Your task to perform on an android device: Look up the best rated bike seats on Target Image 0: 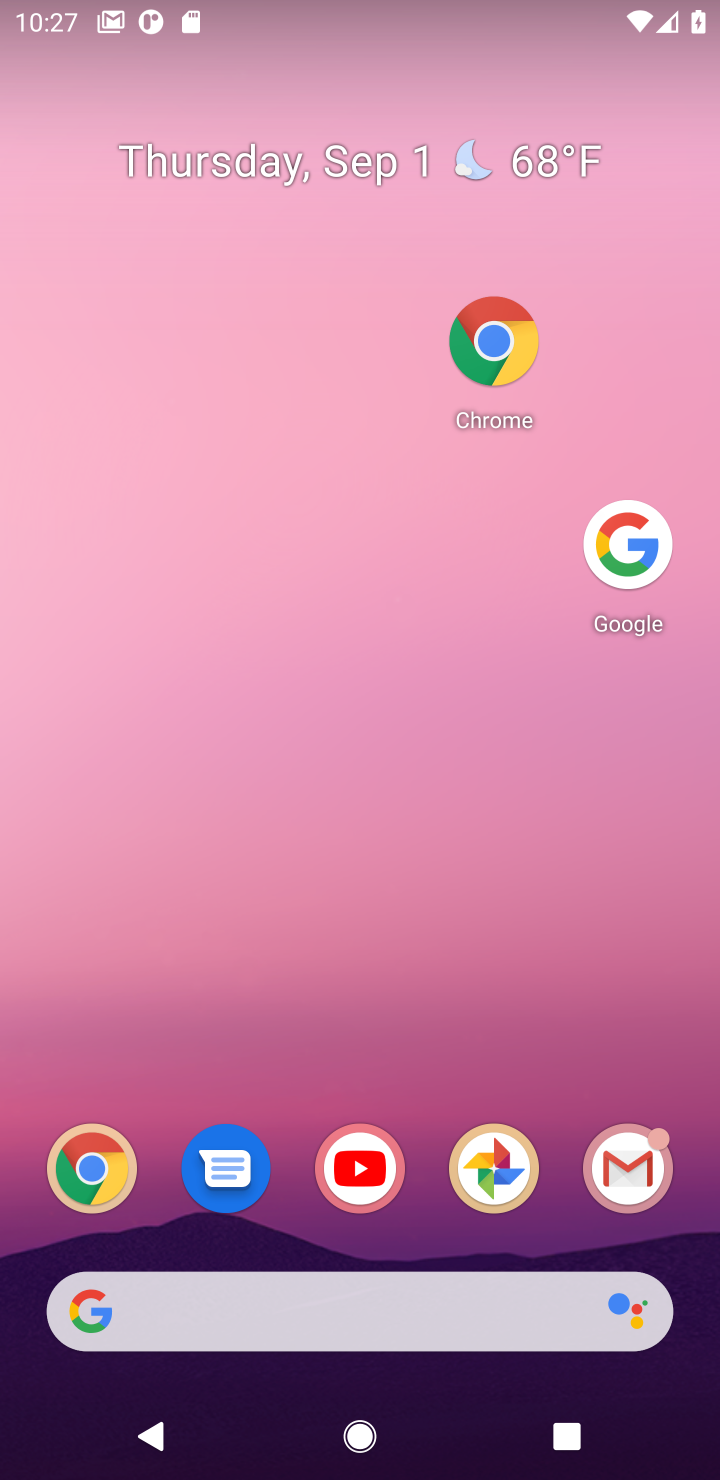
Step 0: drag from (195, 1198) to (207, 283)
Your task to perform on an android device: Look up the best rated bike seats on Target Image 1: 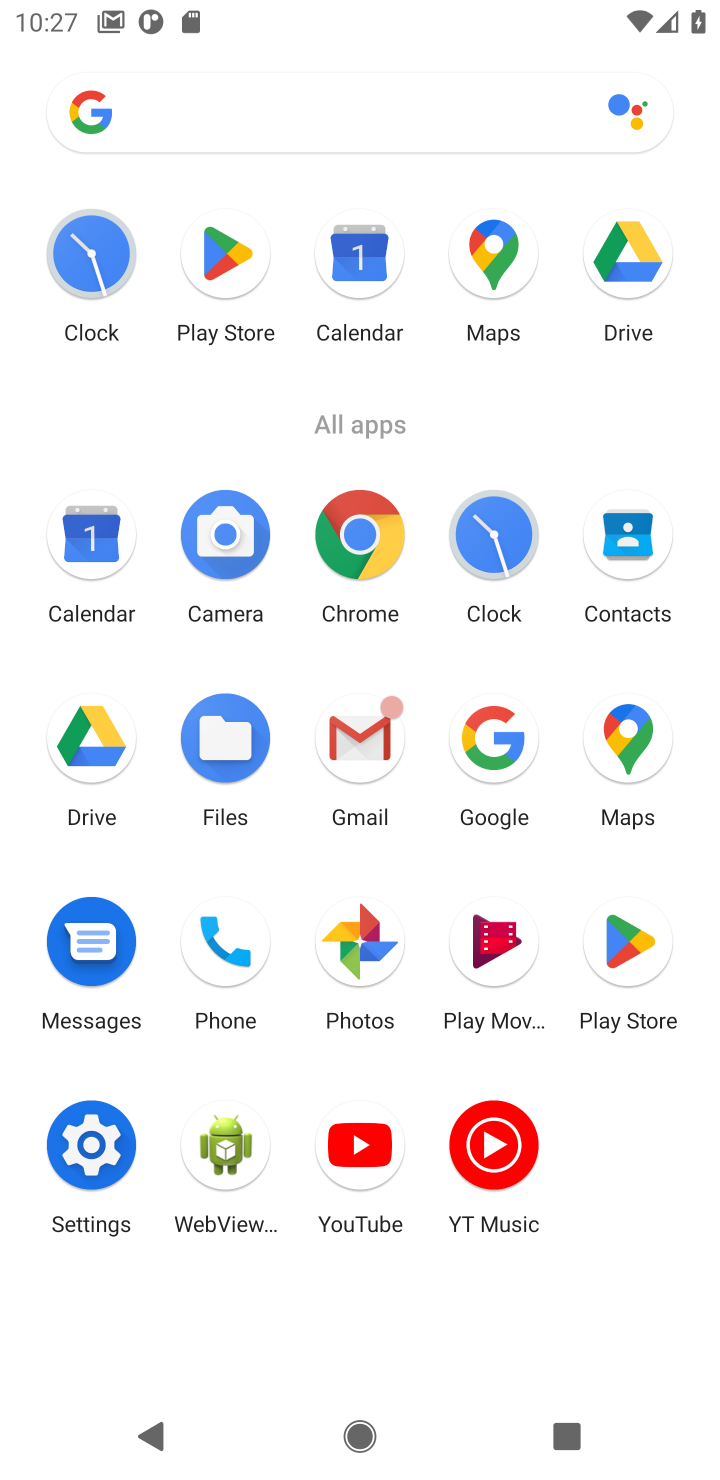
Step 1: click (506, 748)
Your task to perform on an android device: Look up the best rated bike seats on Target Image 2: 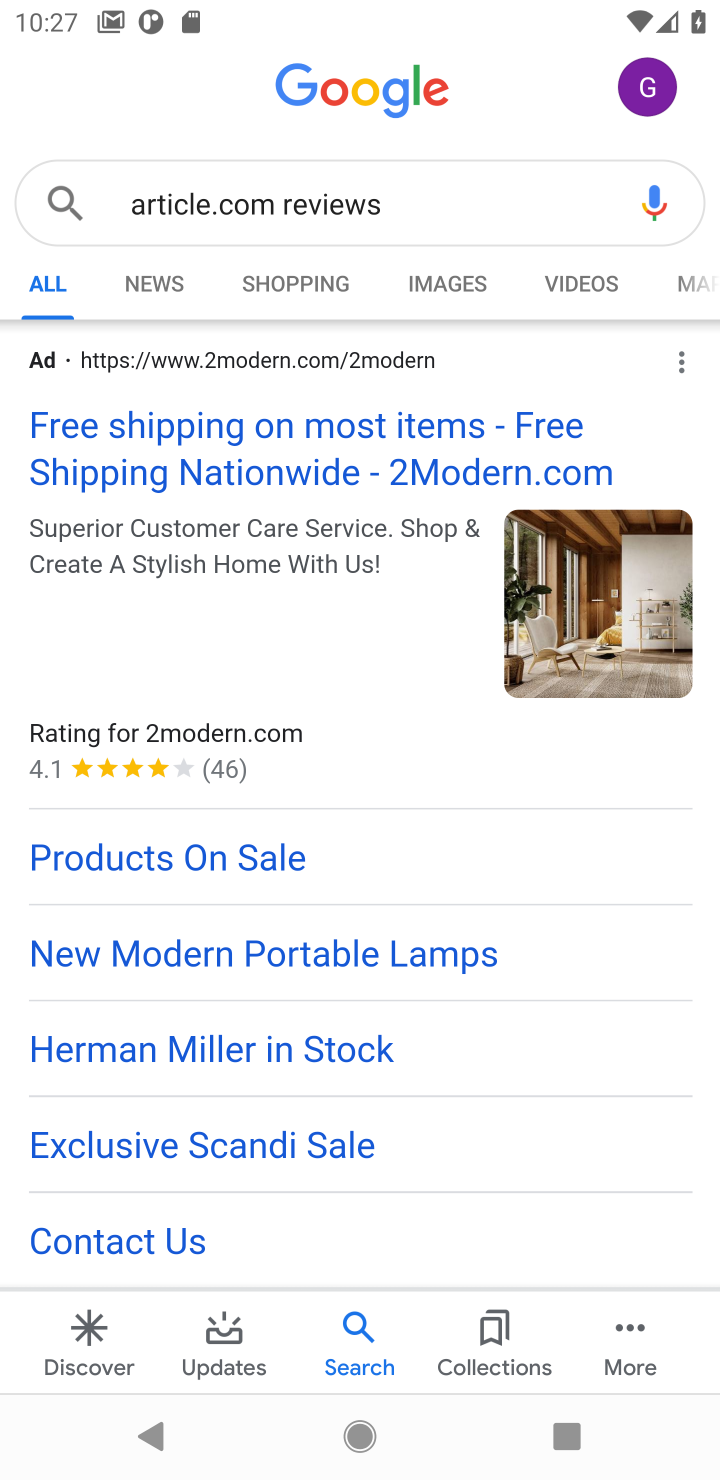
Step 2: click (417, 202)
Your task to perform on an android device: Look up the best rated bike seats on Target Image 3: 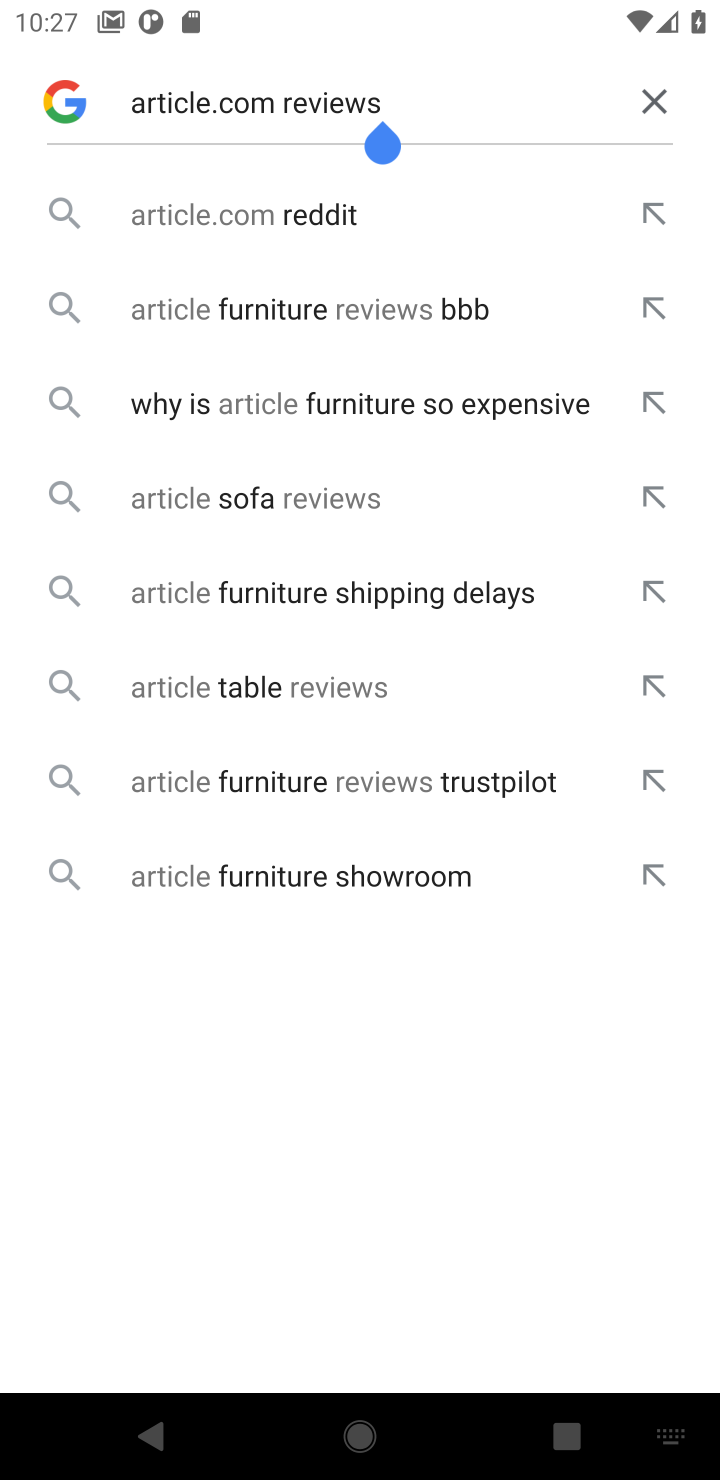
Step 3: click (665, 107)
Your task to perform on an android device: Look up the best rated bike seats on Target Image 4: 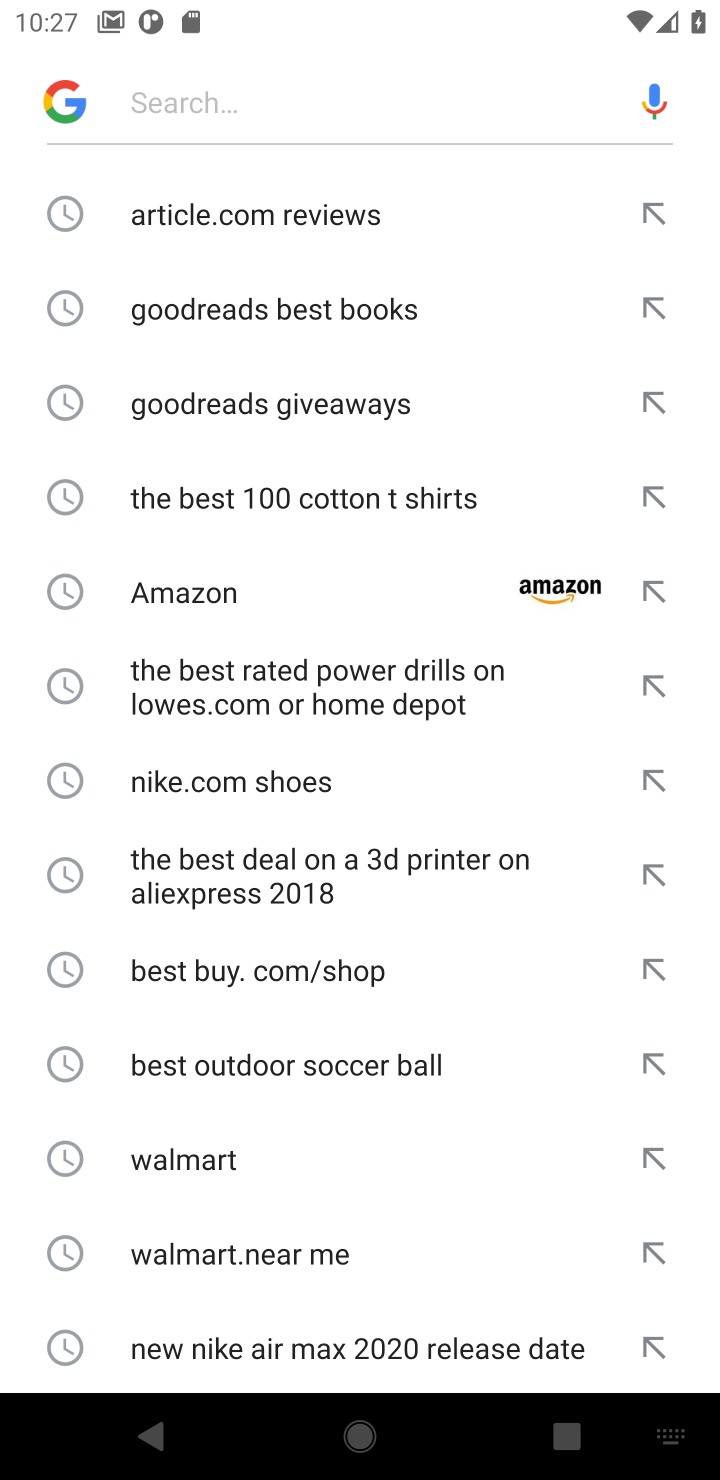
Step 4: click (285, 105)
Your task to perform on an android device: Look up the best rated bike seats on Target Image 5: 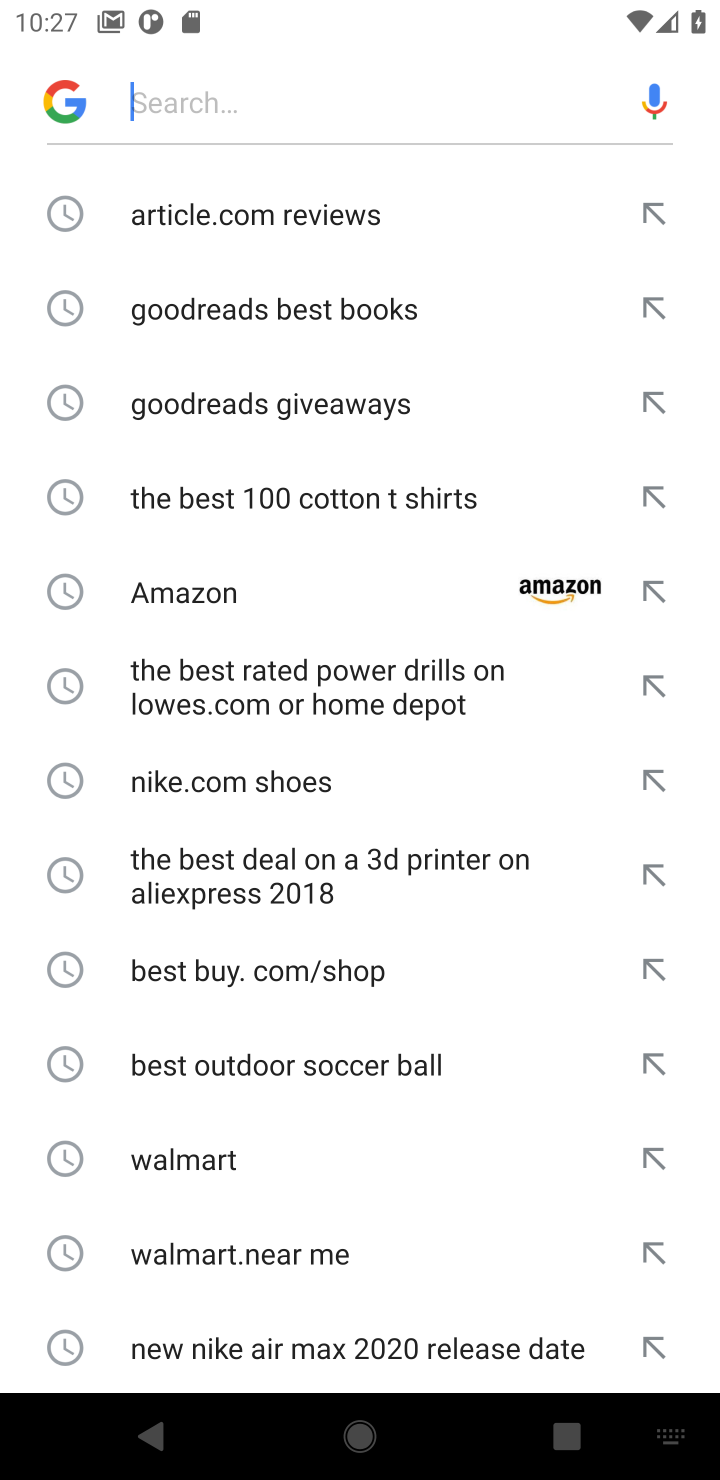
Step 5: type "Target "
Your task to perform on an android device: Look up the best rated bike seats on Target Image 6: 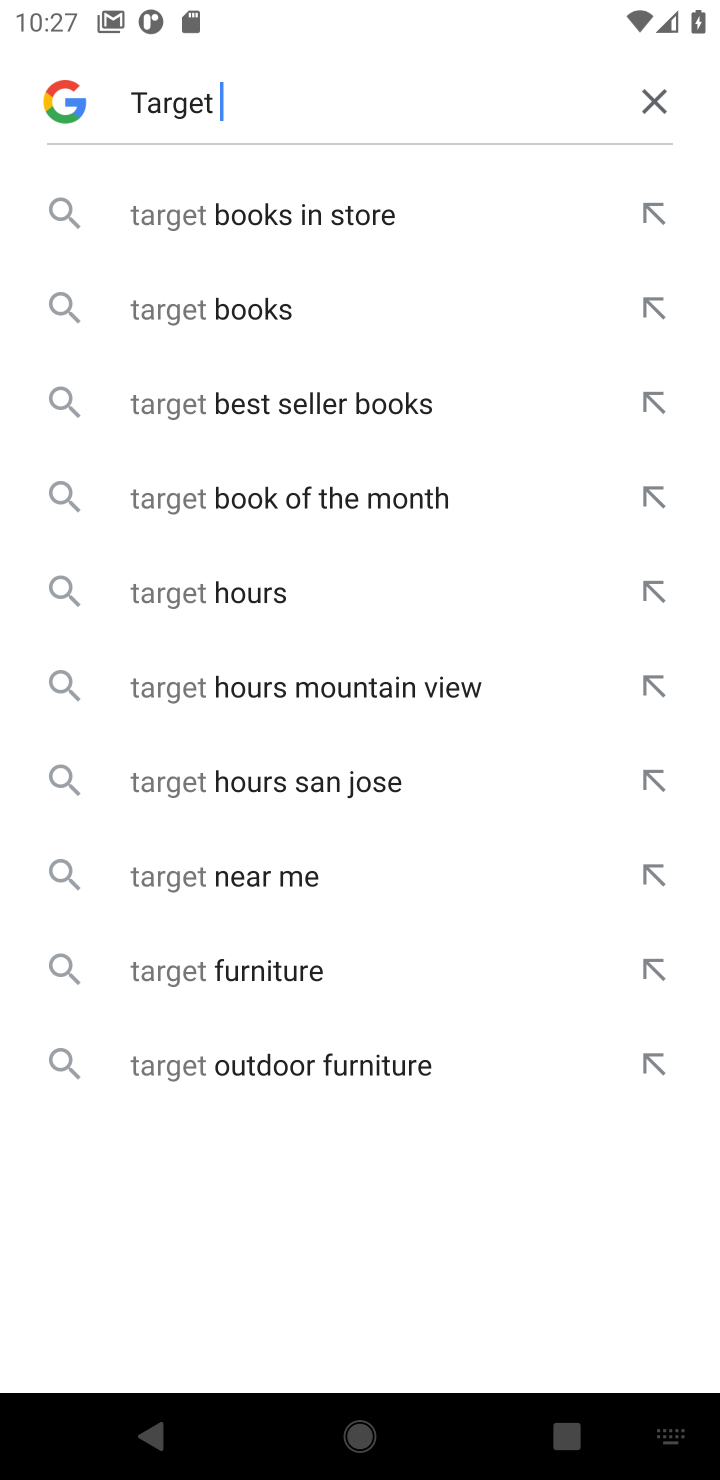
Step 6: click (189, 1044)
Your task to perform on an android device: Look up the best rated bike seats on Target Image 7: 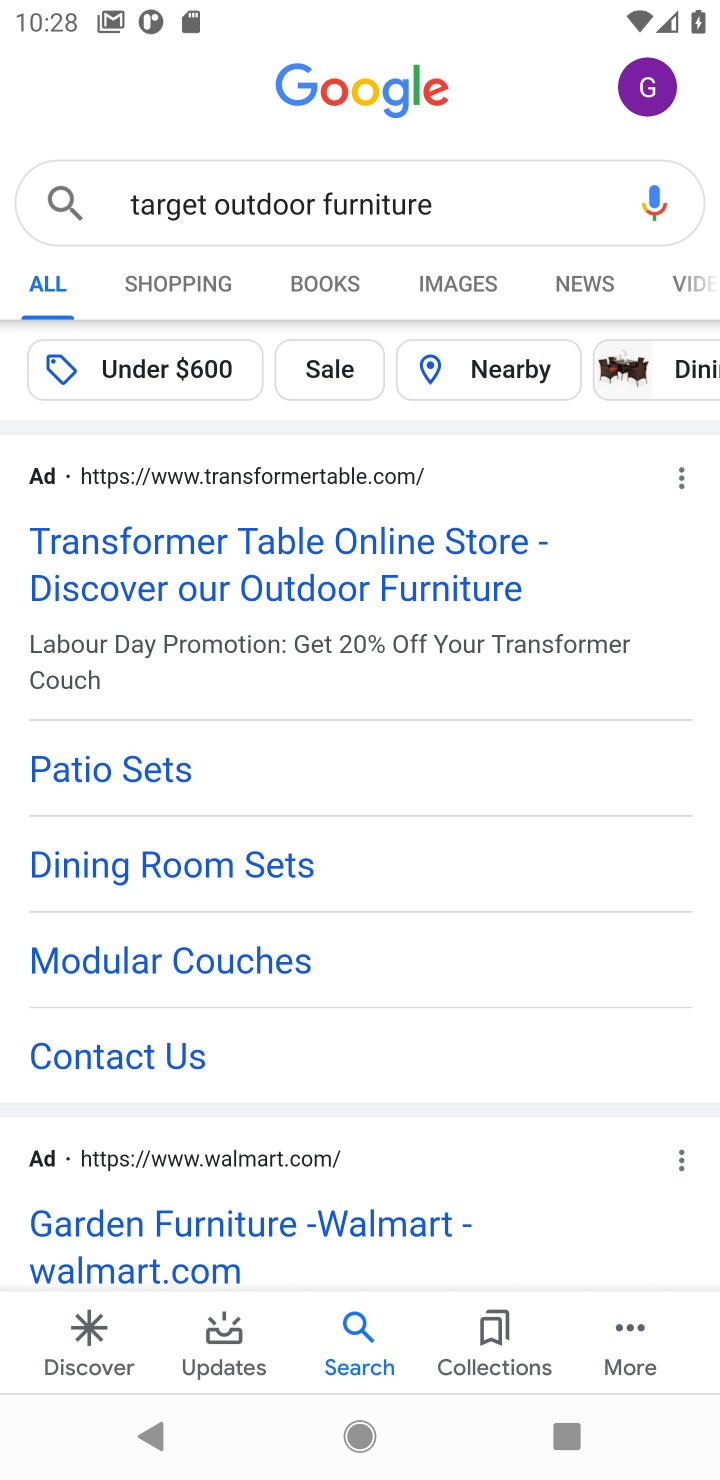
Step 7: click (319, 580)
Your task to perform on an android device: Look up the best rated bike seats on Target Image 8: 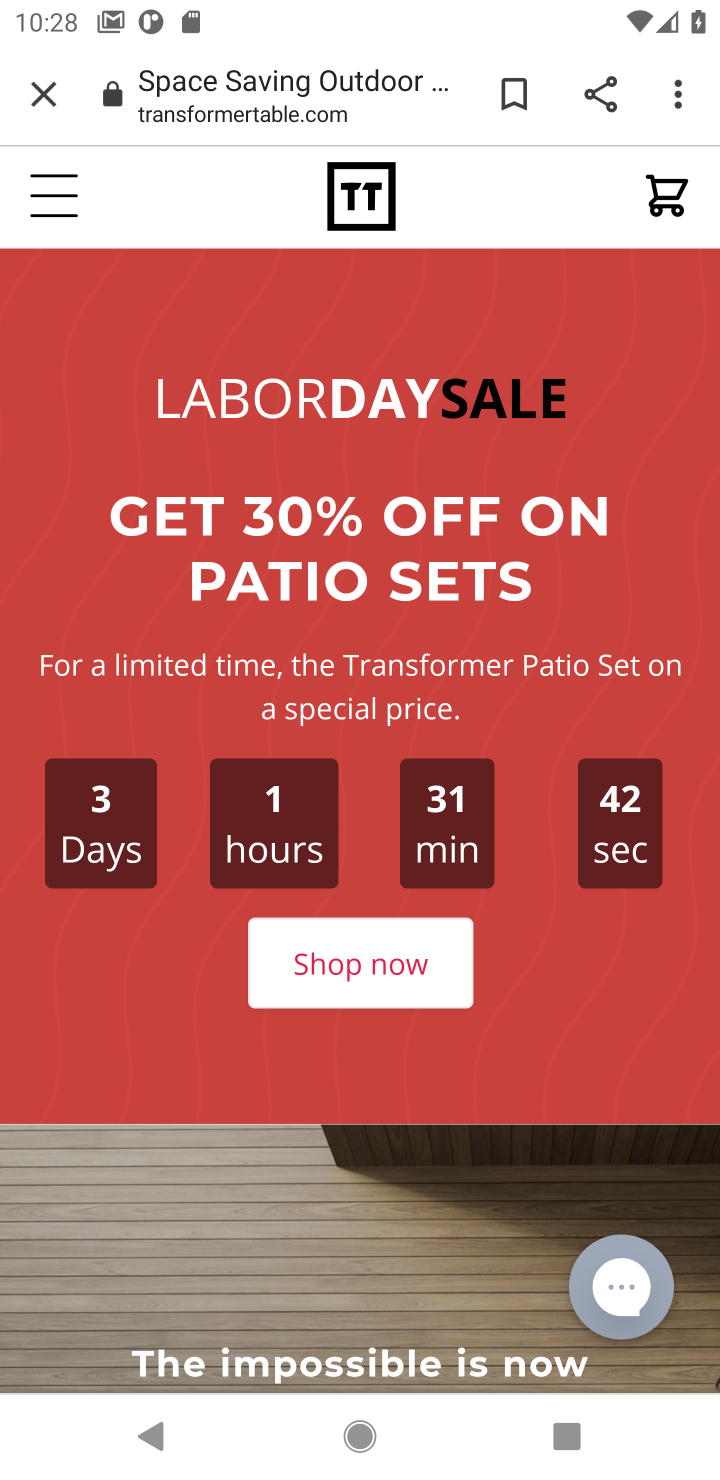
Step 8: click (73, 182)
Your task to perform on an android device: Look up the best rated bike seats on Target Image 9: 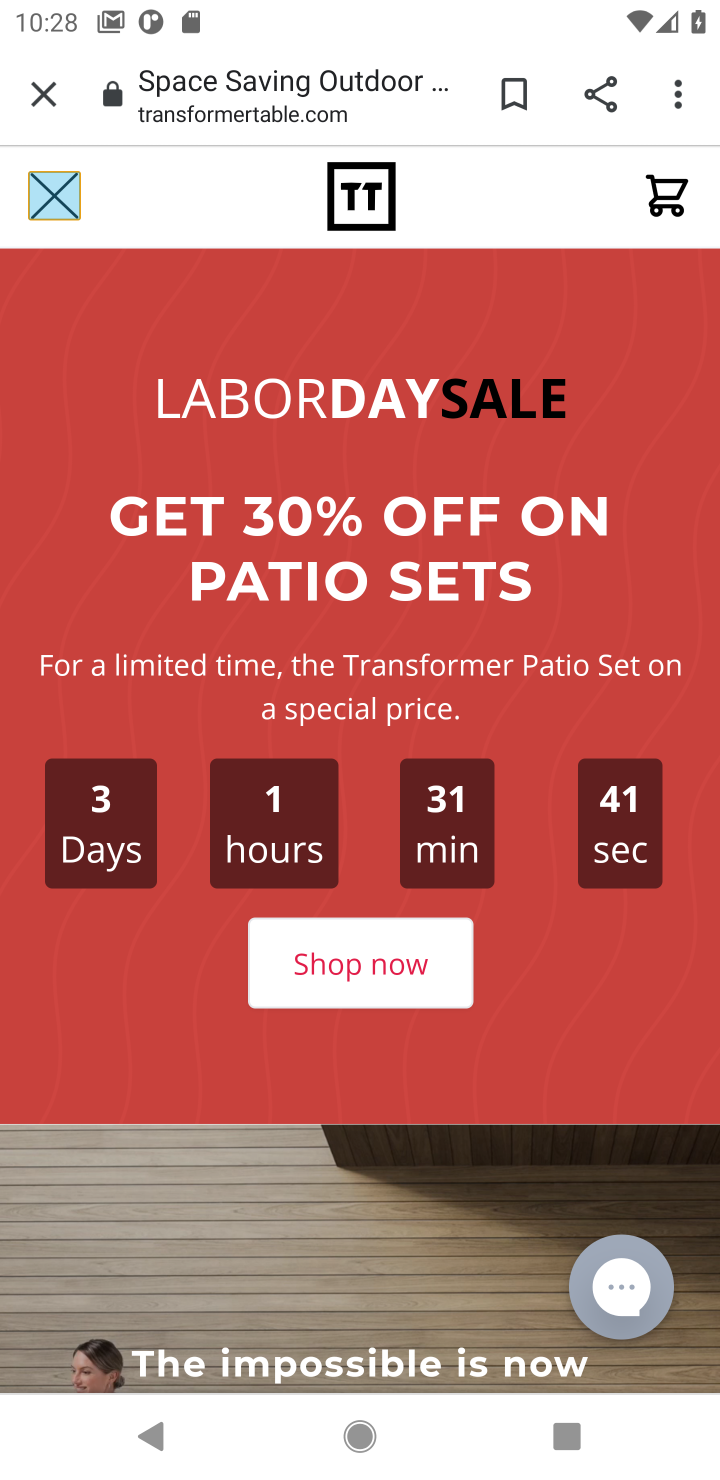
Step 9: click (59, 189)
Your task to perform on an android device: Look up the best rated bike seats on Target Image 10: 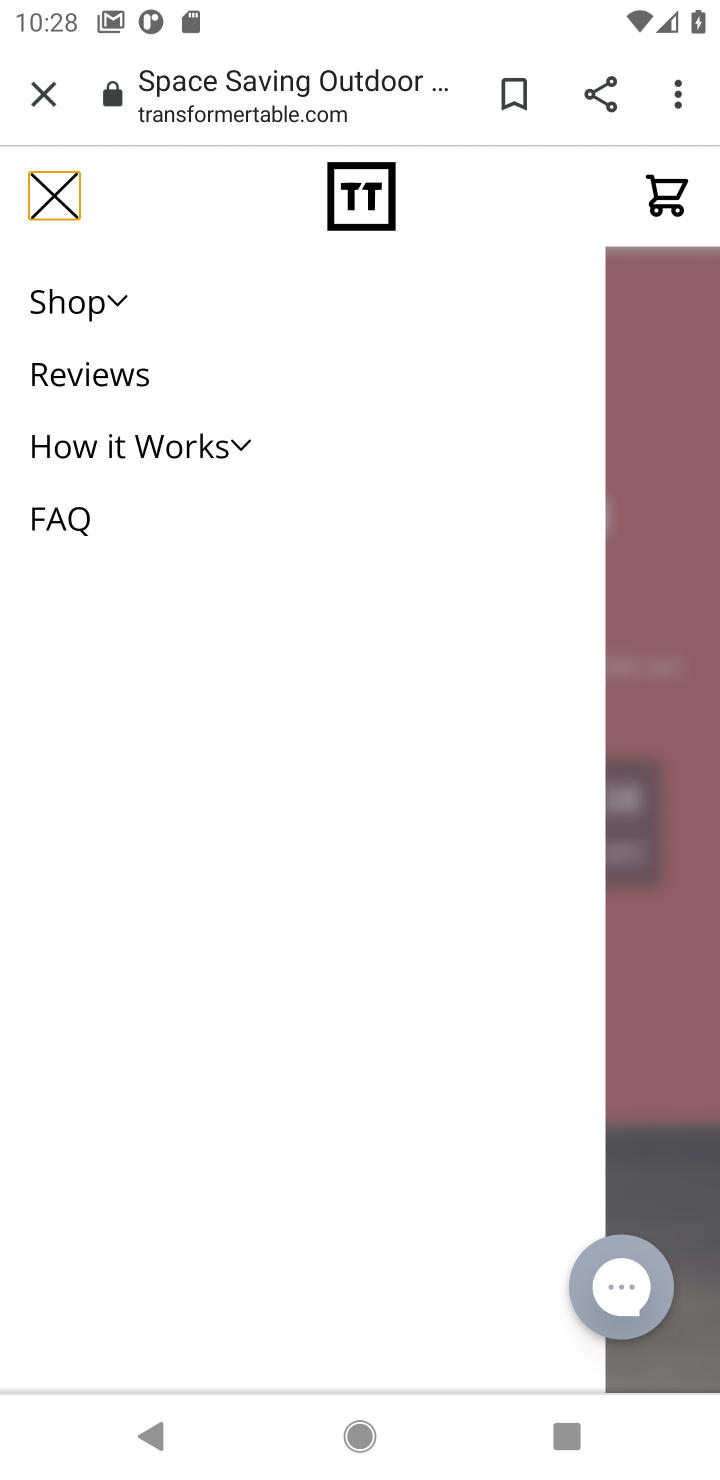
Step 10: click (24, 78)
Your task to perform on an android device: Look up the best rated bike seats on Target Image 11: 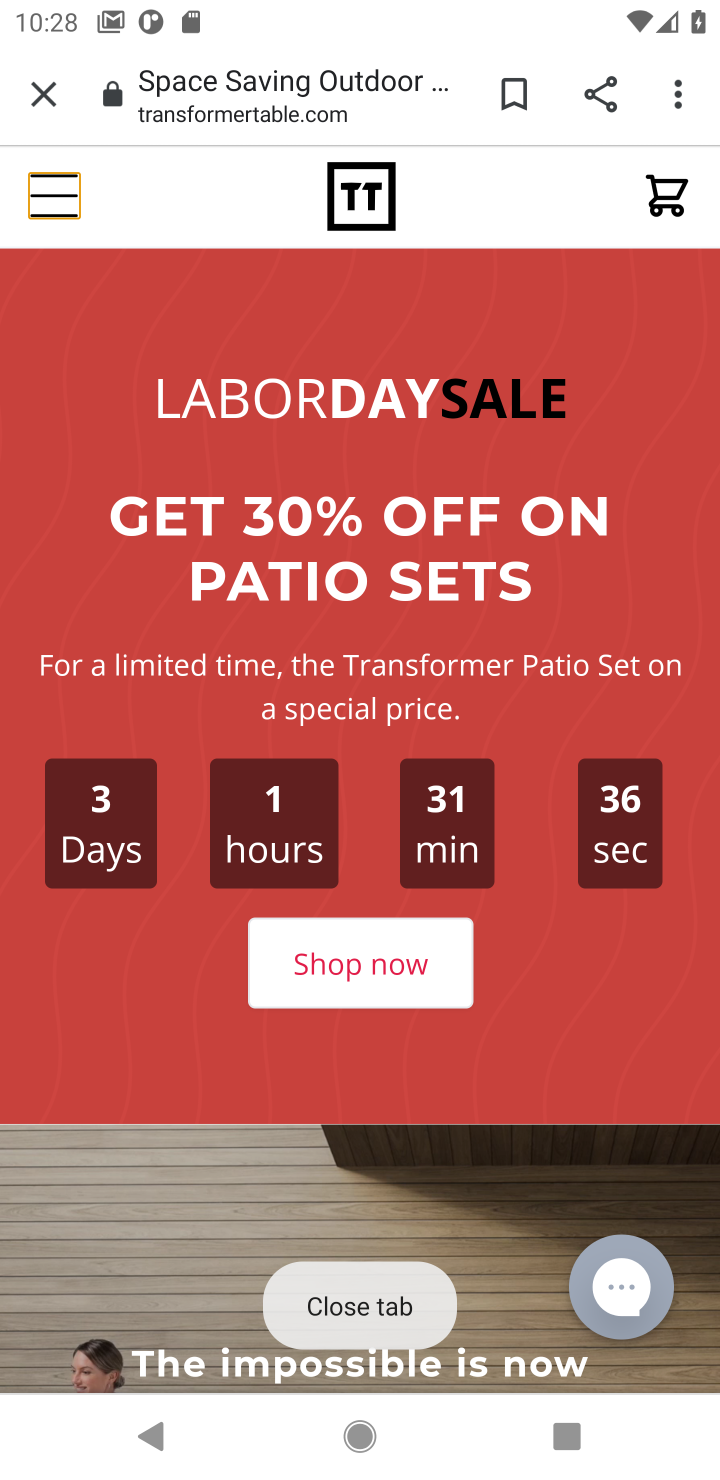
Step 11: click (41, 93)
Your task to perform on an android device: Look up the best rated bike seats on Target Image 12: 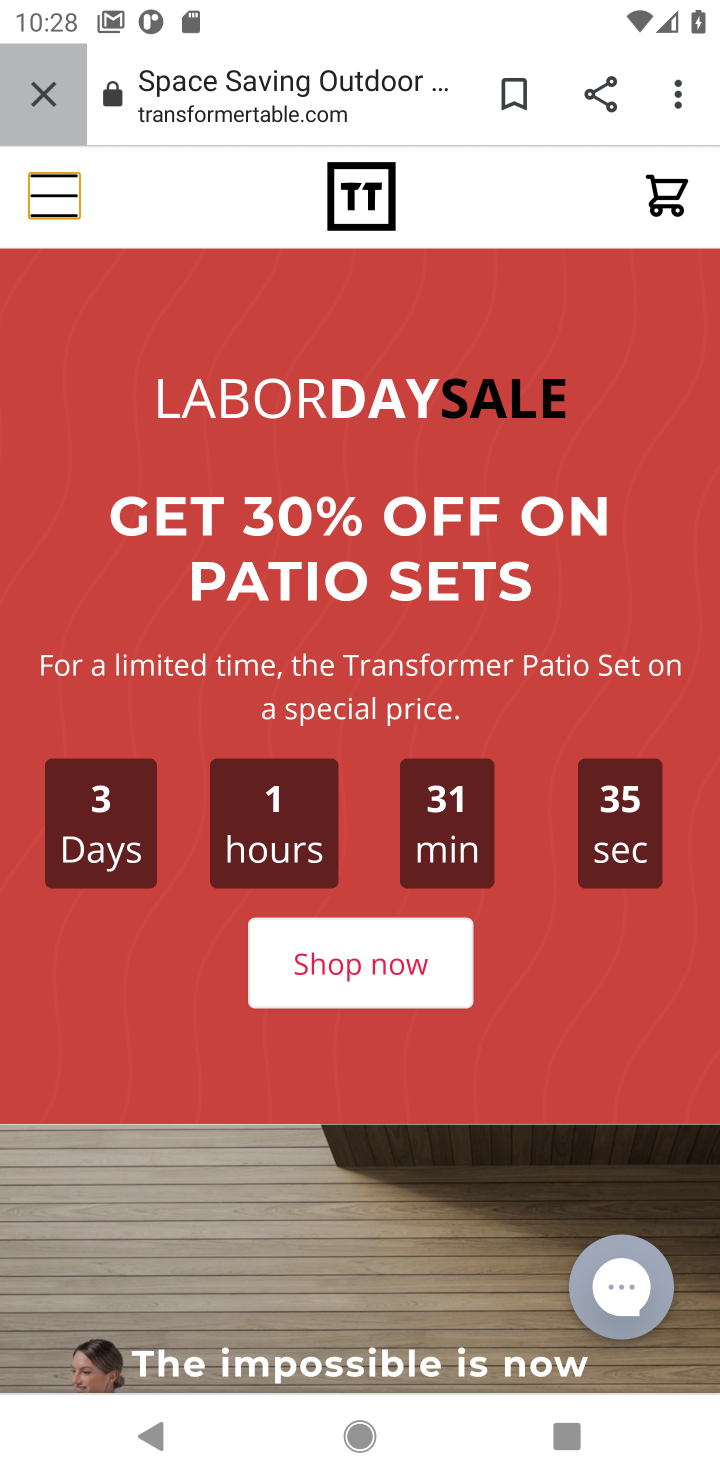
Step 12: press back button
Your task to perform on an android device: Look up the best rated bike seats on Target Image 13: 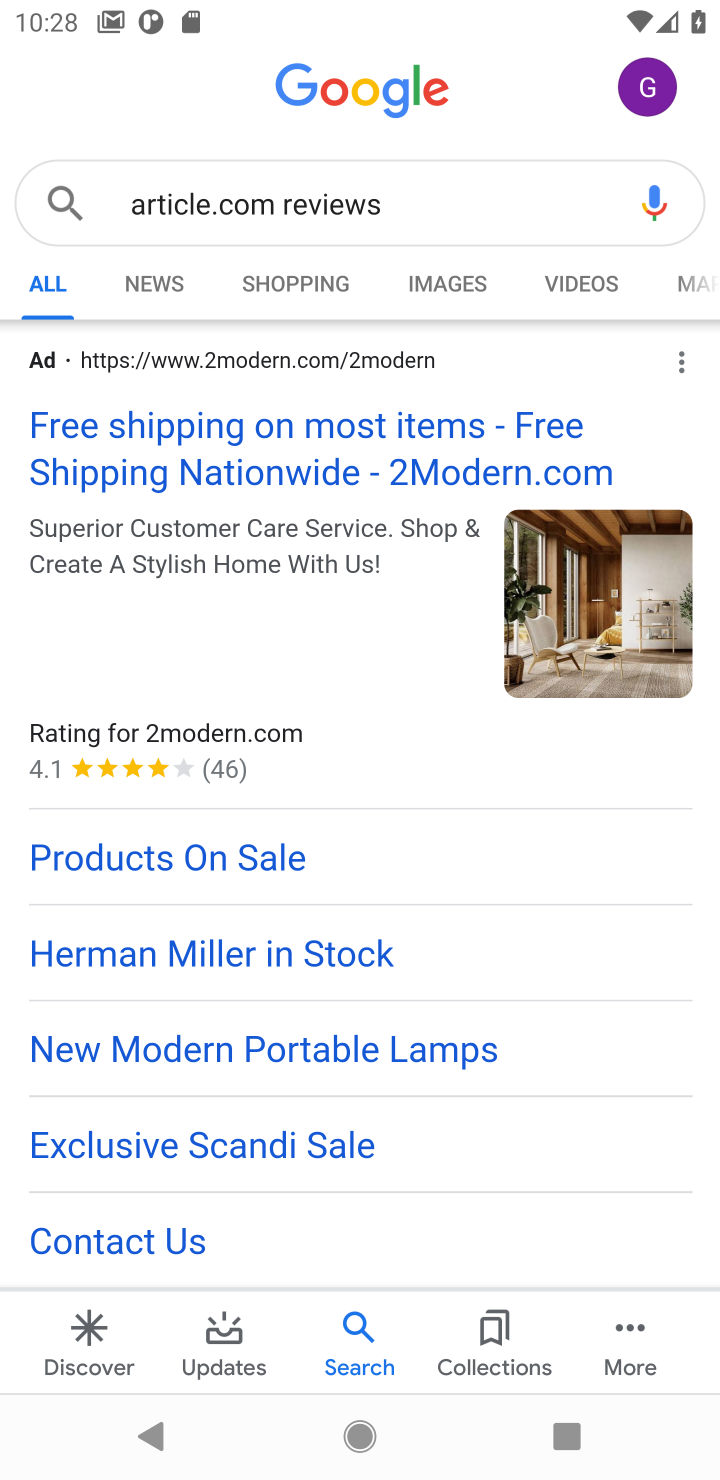
Step 13: click (507, 211)
Your task to perform on an android device: Look up the best rated bike seats on Target Image 14: 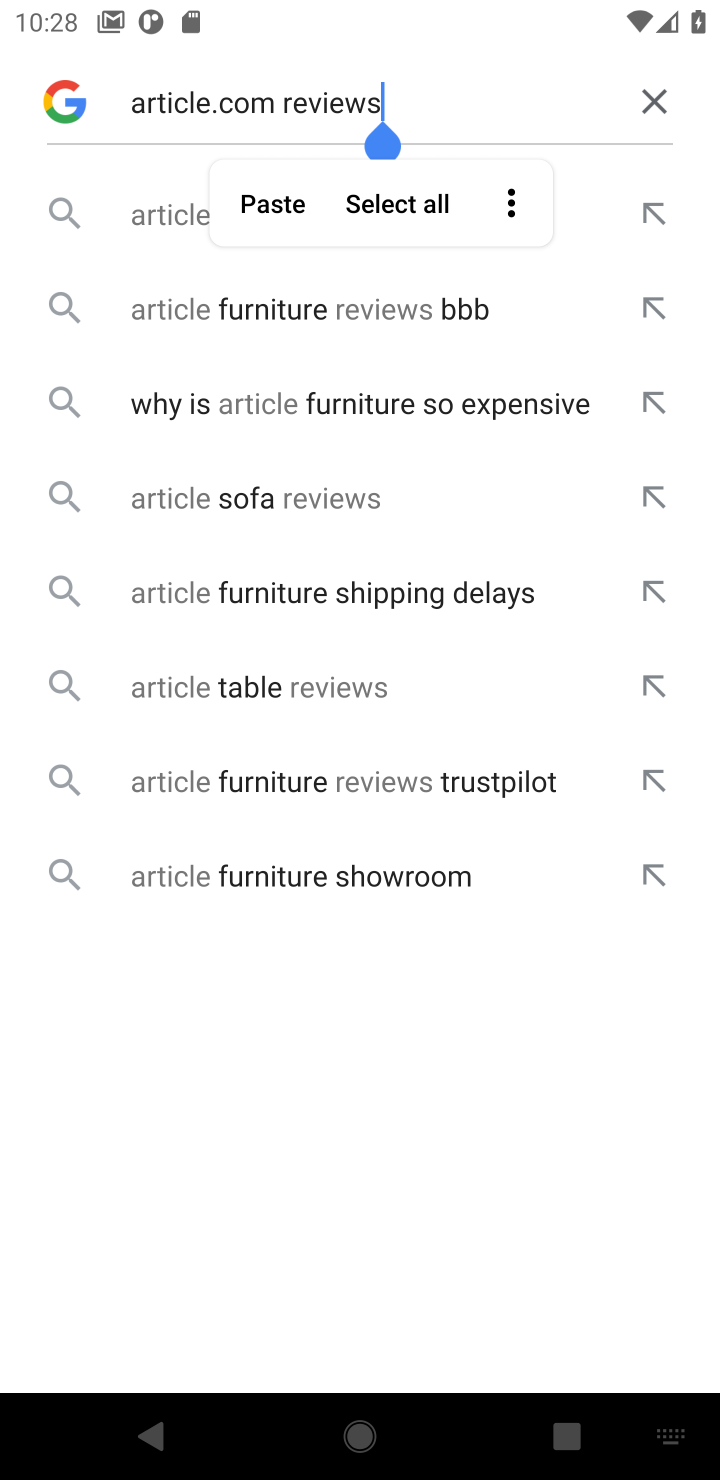
Step 14: click (659, 102)
Your task to perform on an android device: Look up the best rated bike seats on Target Image 15: 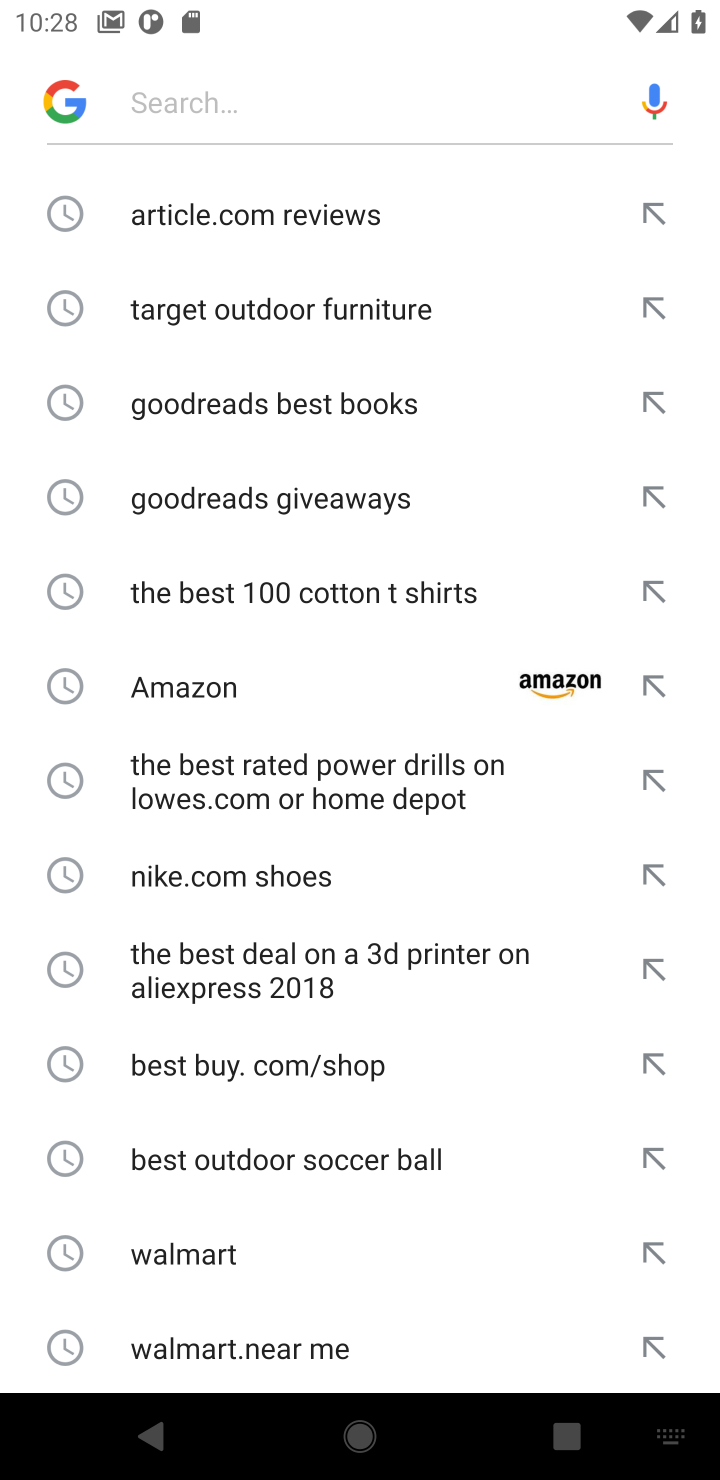
Step 15: click (306, 77)
Your task to perform on an android device: Look up the best rated bike seats on Target Image 16: 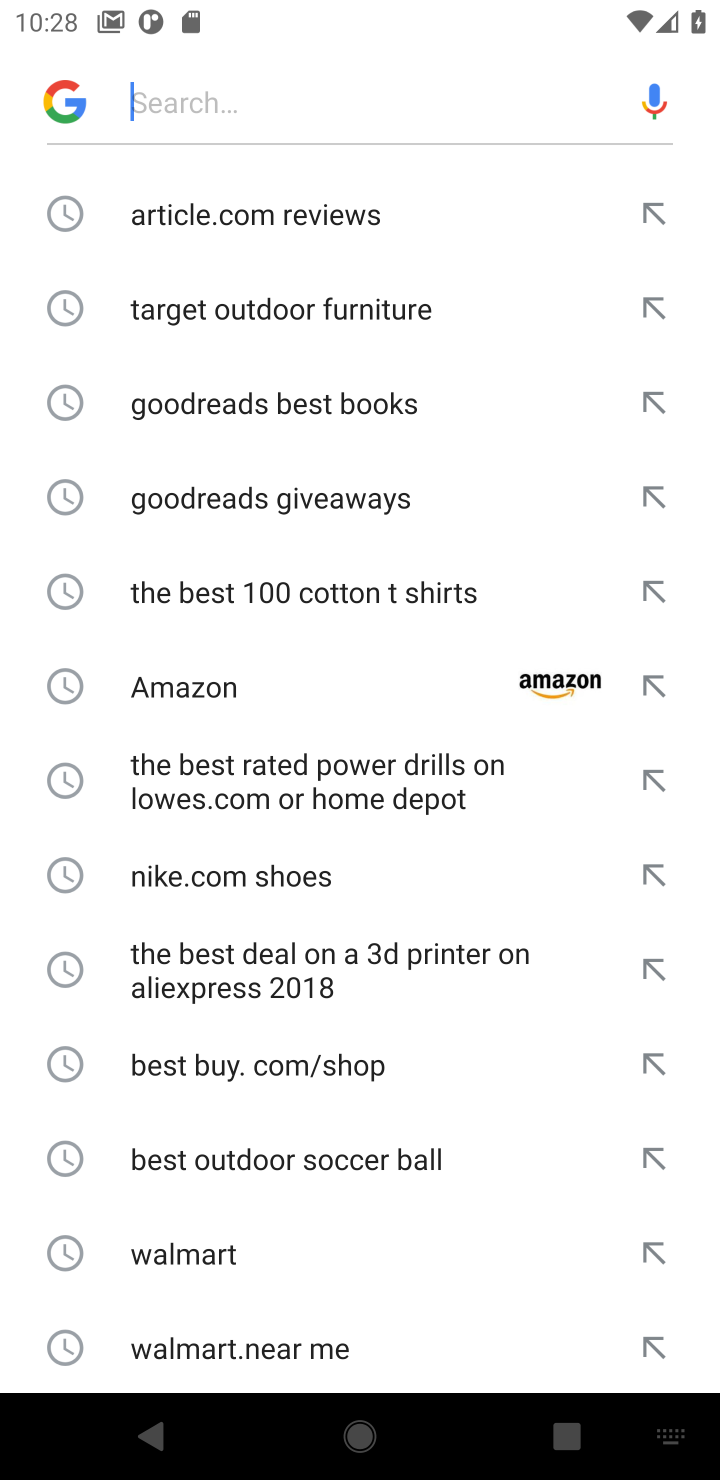
Step 16: type "the best rated bike seats on Target "
Your task to perform on an android device: Look up the best rated bike seats on Target Image 17: 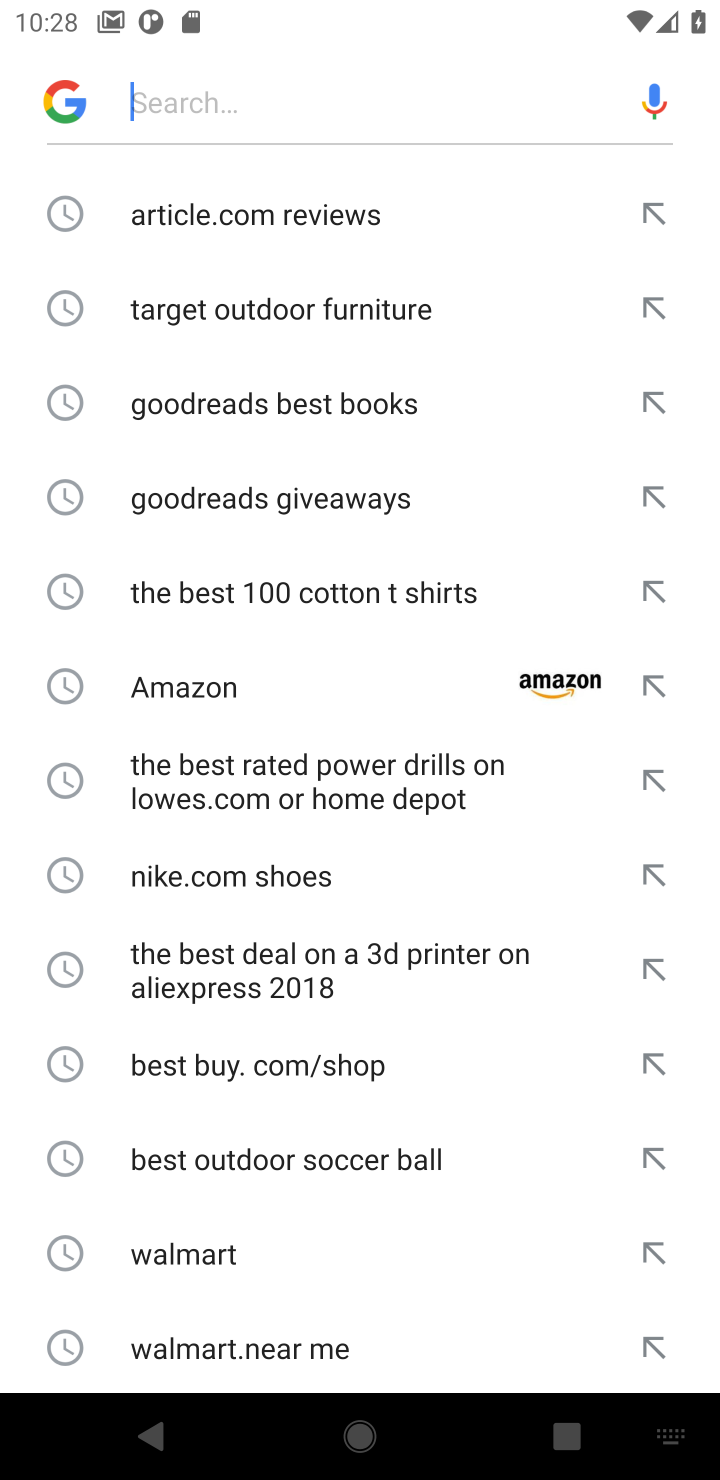
Step 17: click (226, 89)
Your task to perform on an android device: Look up the best rated bike seats on Target Image 18: 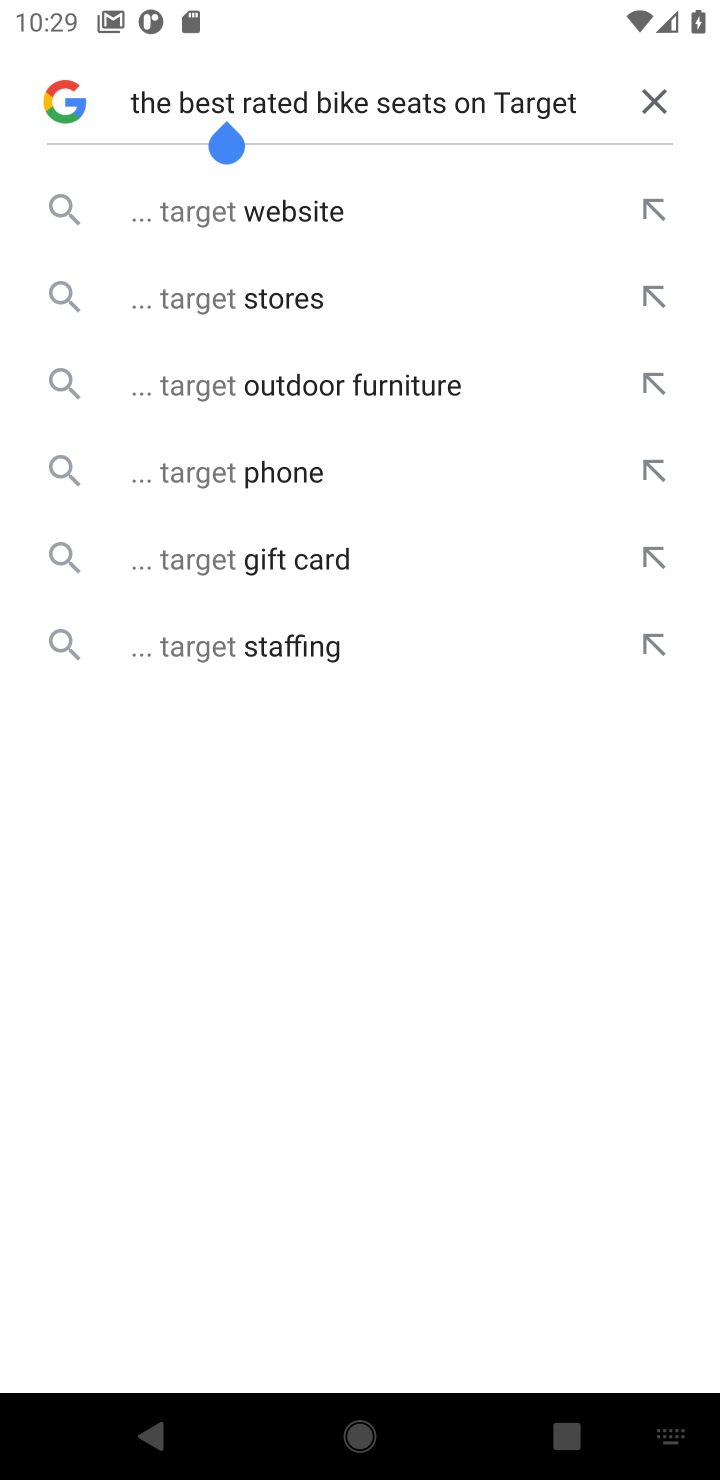
Step 18: click (295, 200)
Your task to perform on an android device: Look up the best rated bike seats on Target Image 19: 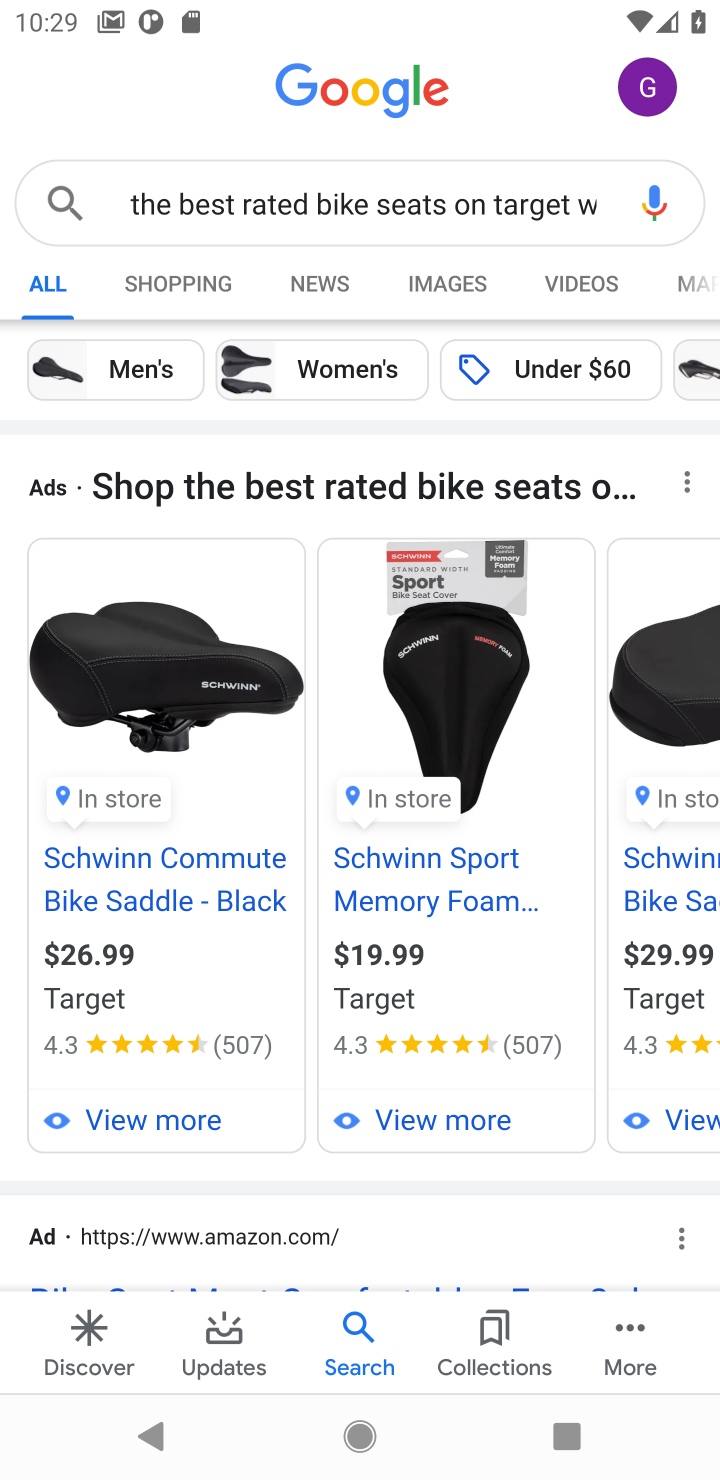
Step 19: drag from (362, 1232) to (415, 595)
Your task to perform on an android device: Look up the best rated bike seats on Target Image 20: 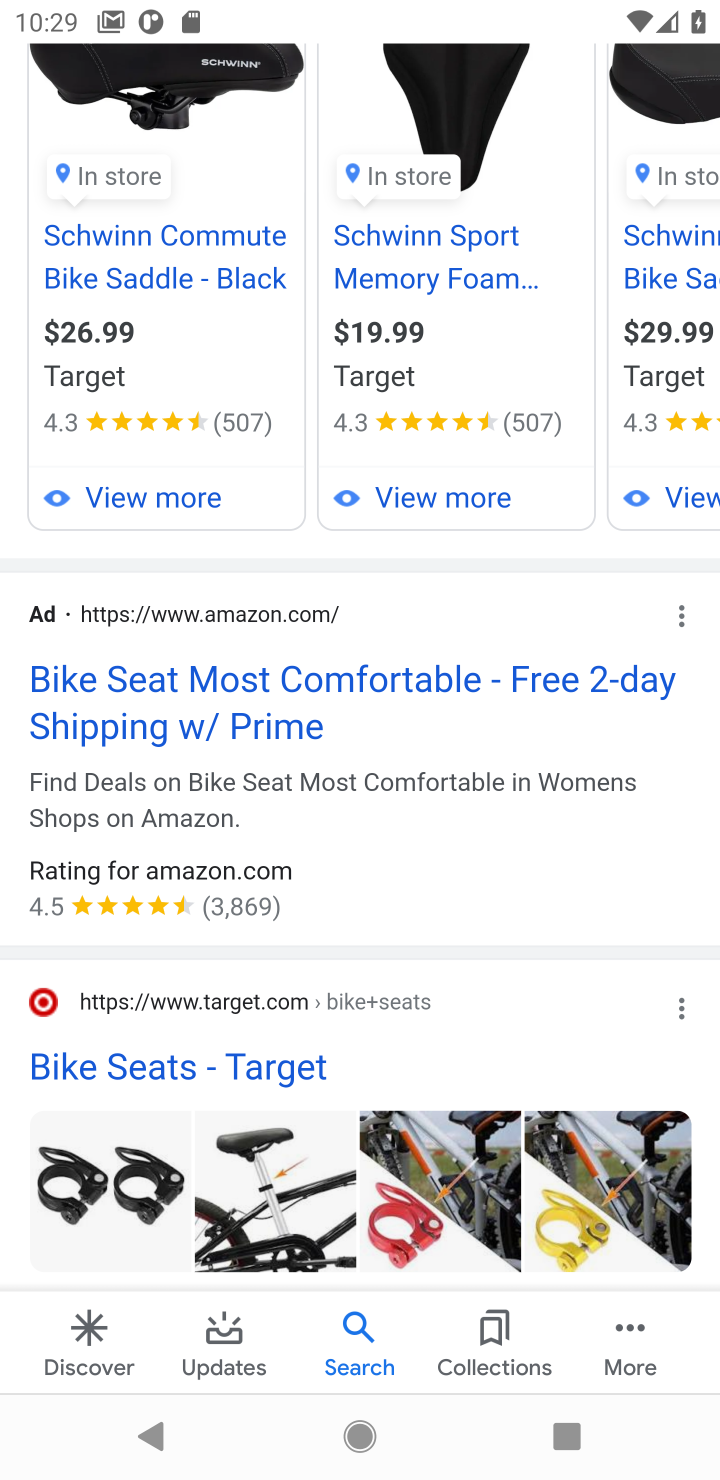
Step 20: drag from (347, 375) to (274, 1406)
Your task to perform on an android device: Look up the best rated bike seats on Target Image 21: 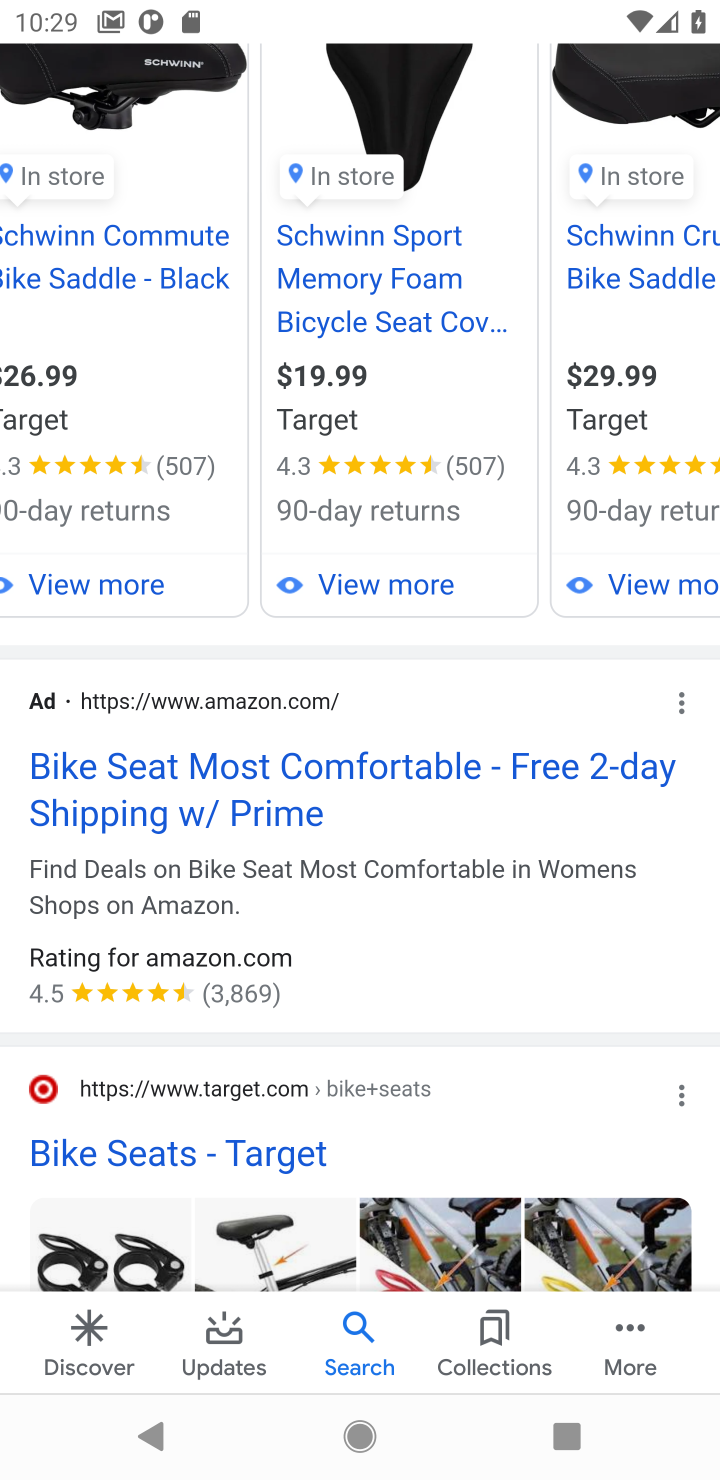
Step 21: drag from (262, 129) to (344, 160)
Your task to perform on an android device: Look up the best rated bike seats on Target Image 22: 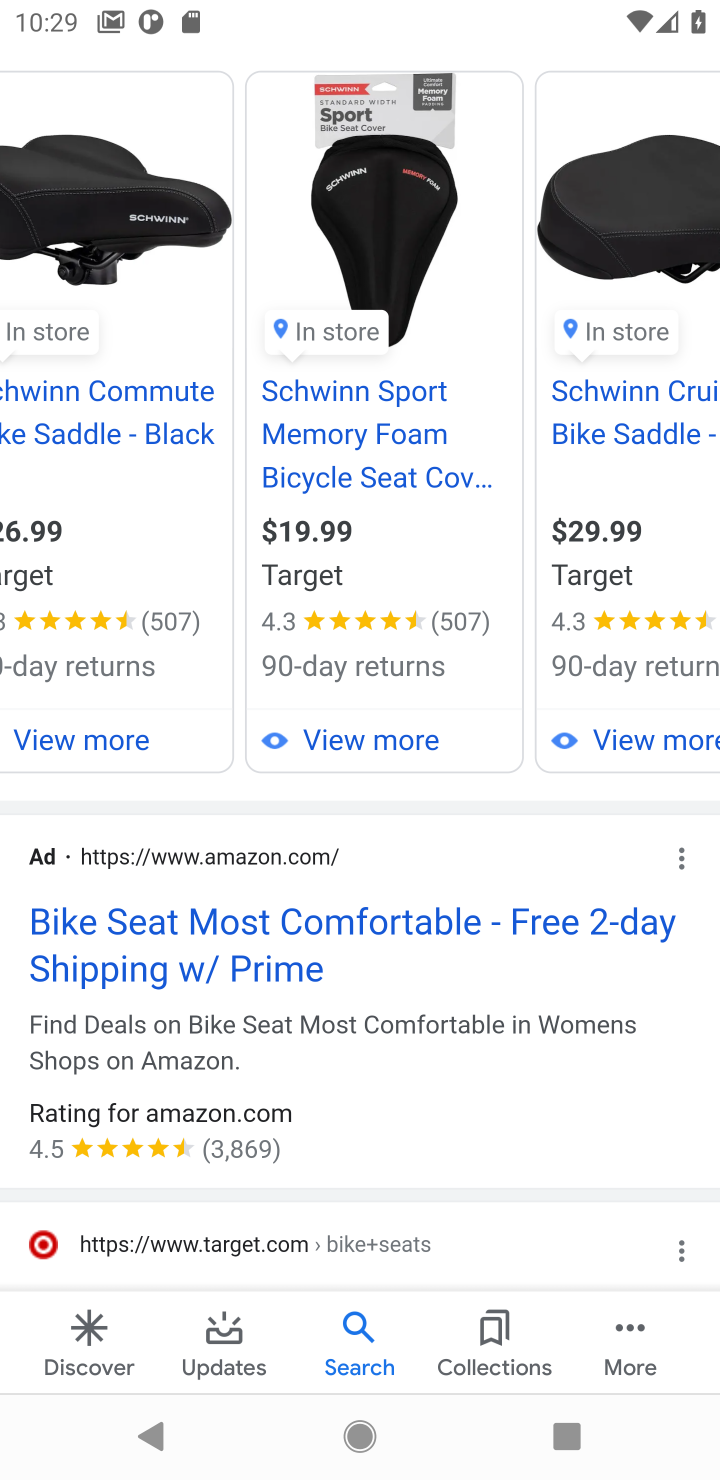
Step 22: drag from (264, 993) to (326, 381)
Your task to perform on an android device: Look up the best rated bike seats on Target Image 23: 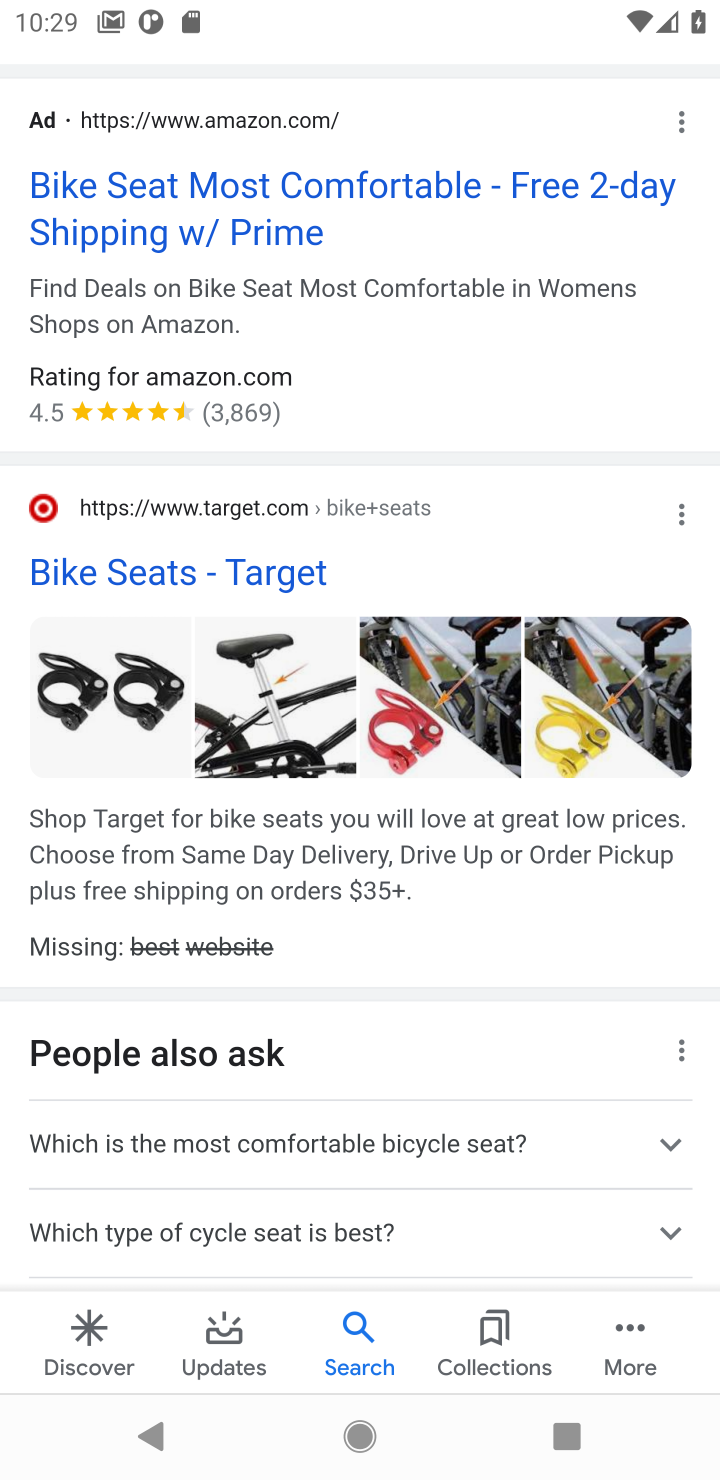
Step 23: click (182, 502)
Your task to perform on an android device: Look up the best rated bike seats on Target Image 24: 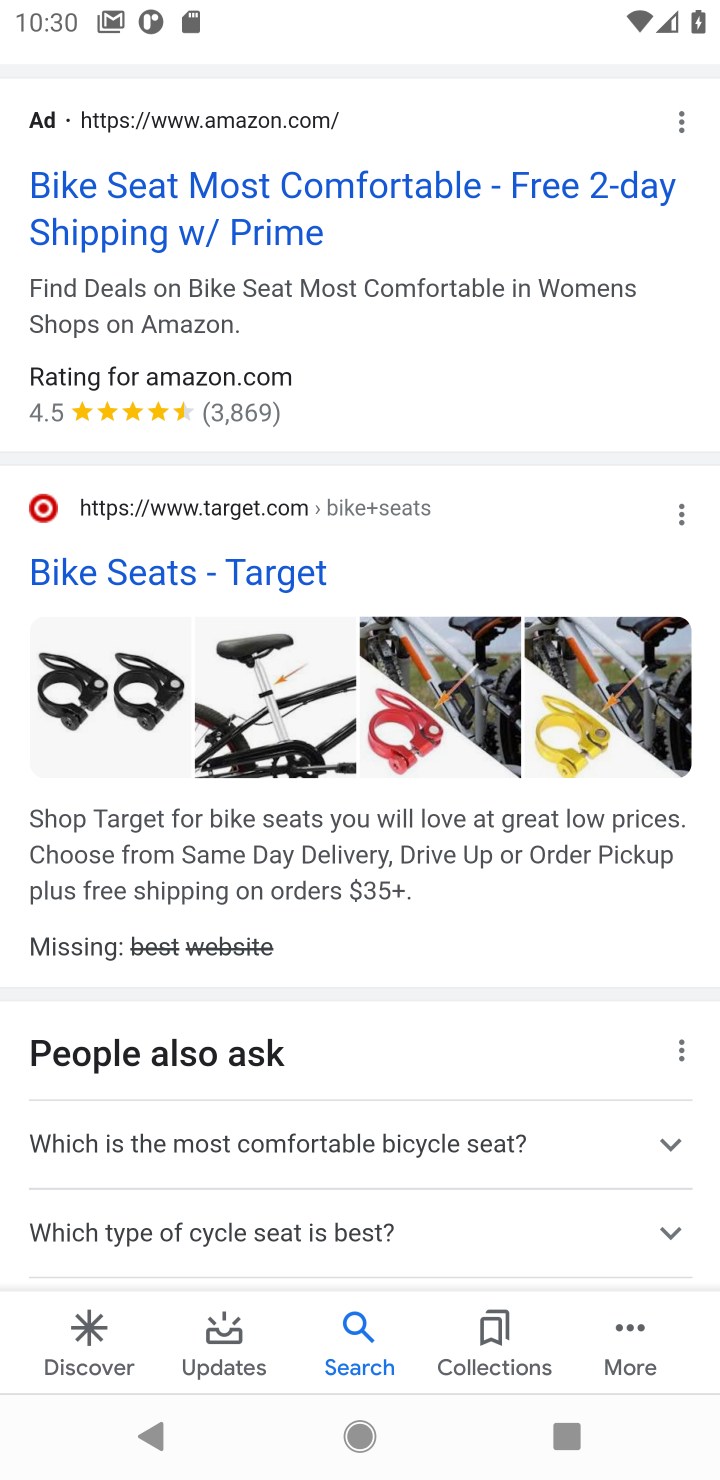
Step 24: task complete